Your task to perform on an android device: empty trash in google photos Image 0: 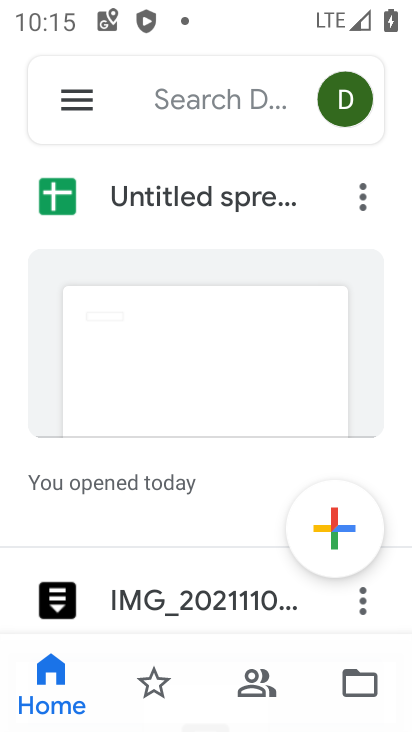
Step 0: press home button
Your task to perform on an android device: empty trash in google photos Image 1: 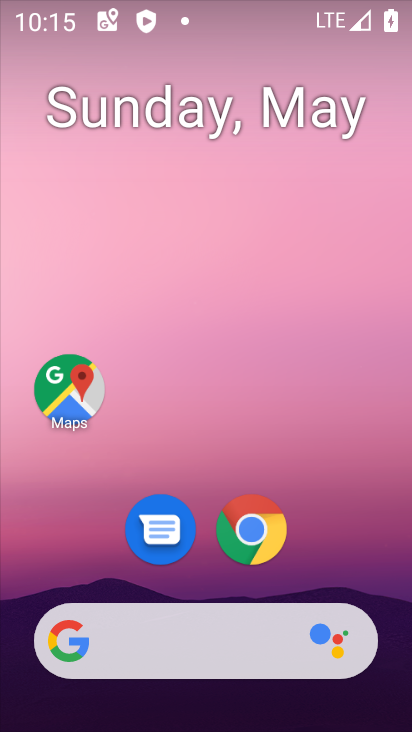
Step 1: drag from (350, 536) to (334, 78)
Your task to perform on an android device: empty trash in google photos Image 2: 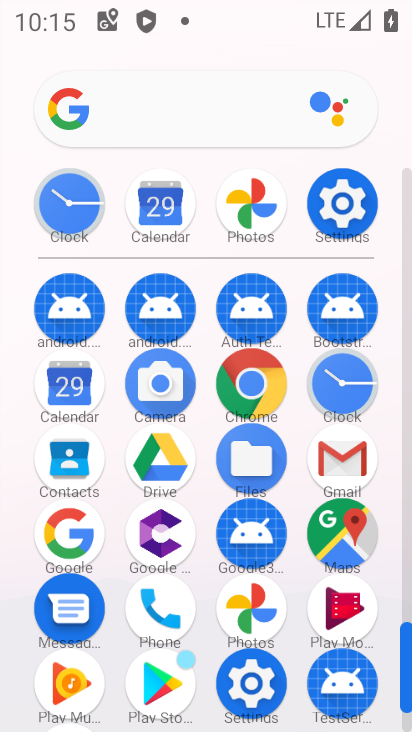
Step 2: click (266, 188)
Your task to perform on an android device: empty trash in google photos Image 3: 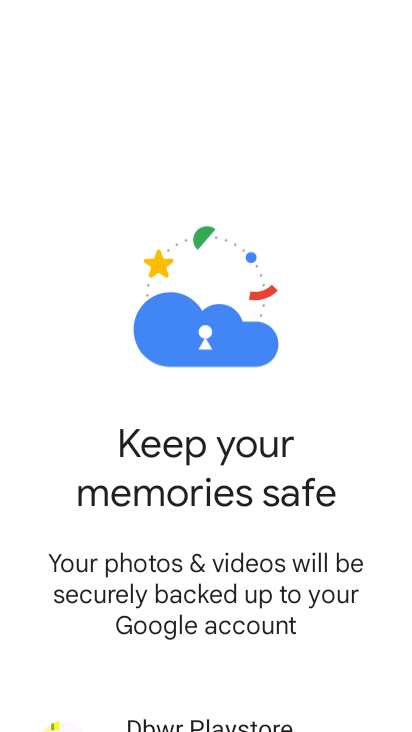
Step 3: drag from (285, 532) to (291, 255)
Your task to perform on an android device: empty trash in google photos Image 4: 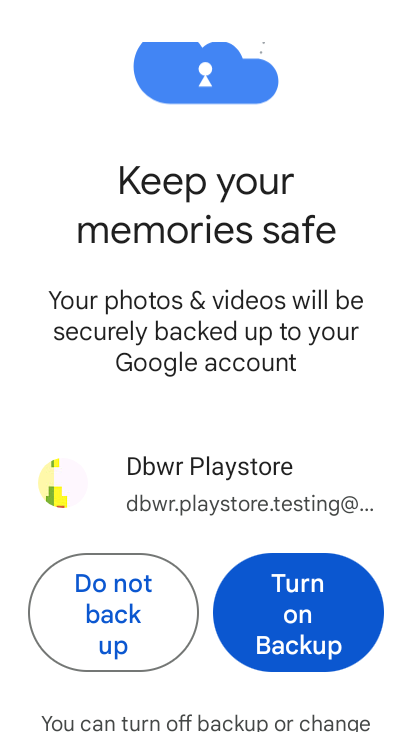
Step 4: click (162, 597)
Your task to perform on an android device: empty trash in google photos Image 5: 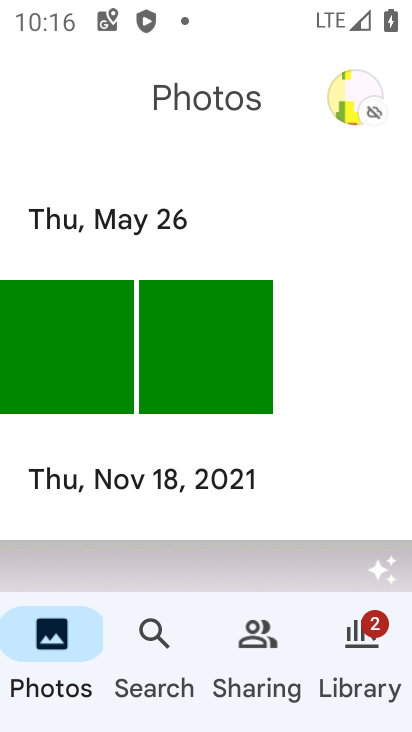
Step 5: task complete